Your task to perform on an android device: What's on my calendar tomorrow? Image 0: 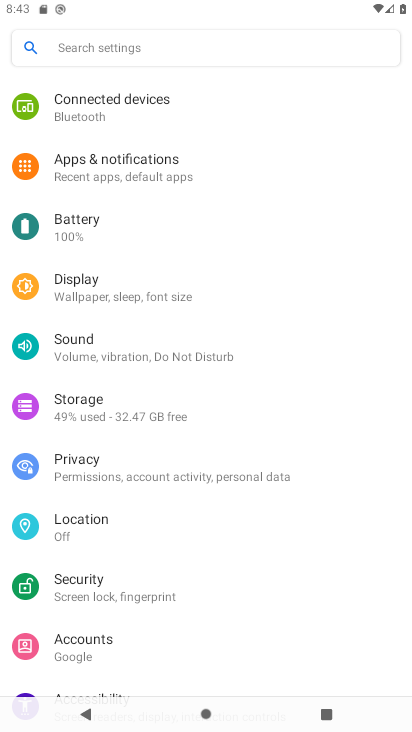
Step 0: press home button
Your task to perform on an android device: What's on my calendar tomorrow? Image 1: 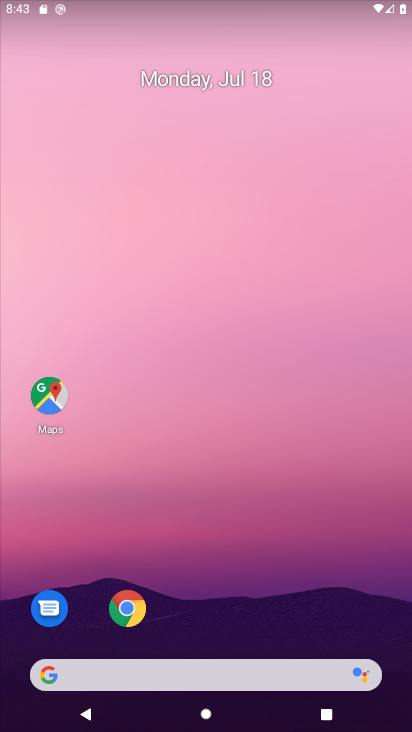
Step 1: drag from (181, 666) to (173, 241)
Your task to perform on an android device: What's on my calendar tomorrow? Image 2: 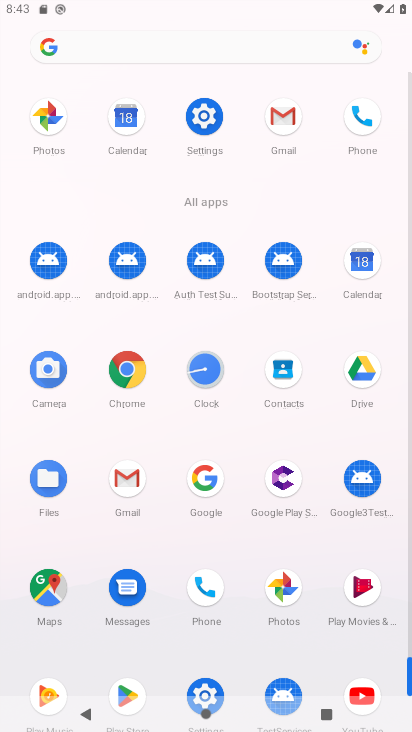
Step 2: click (361, 266)
Your task to perform on an android device: What's on my calendar tomorrow? Image 3: 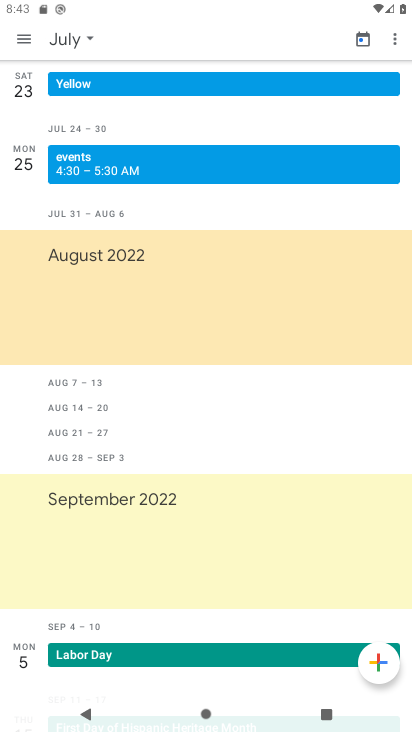
Step 3: click (363, 40)
Your task to perform on an android device: What's on my calendar tomorrow? Image 4: 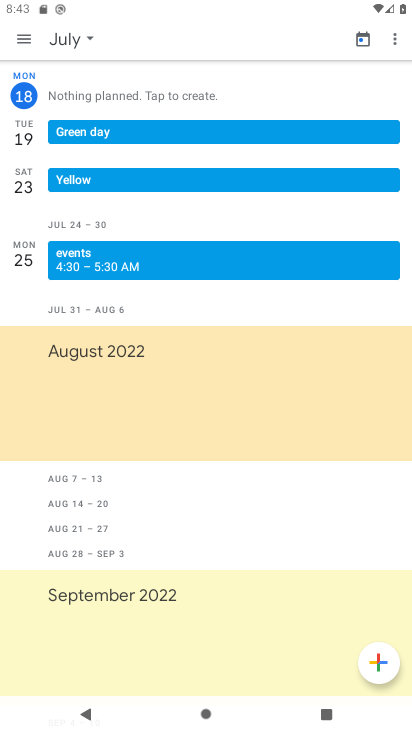
Step 4: click (85, 35)
Your task to perform on an android device: What's on my calendar tomorrow? Image 5: 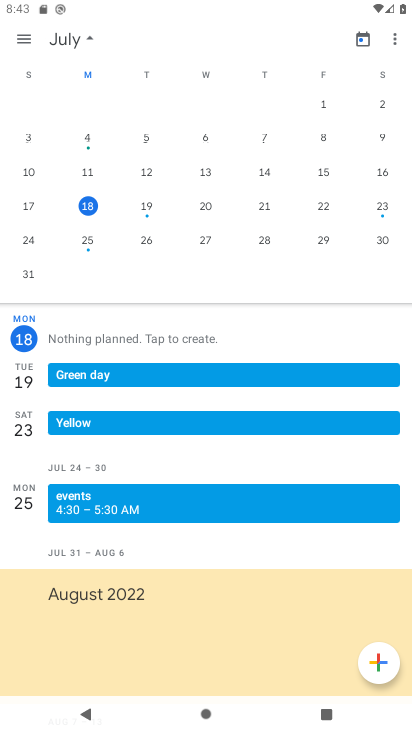
Step 5: click (146, 207)
Your task to perform on an android device: What's on my calendar tomorrow? Image 6: 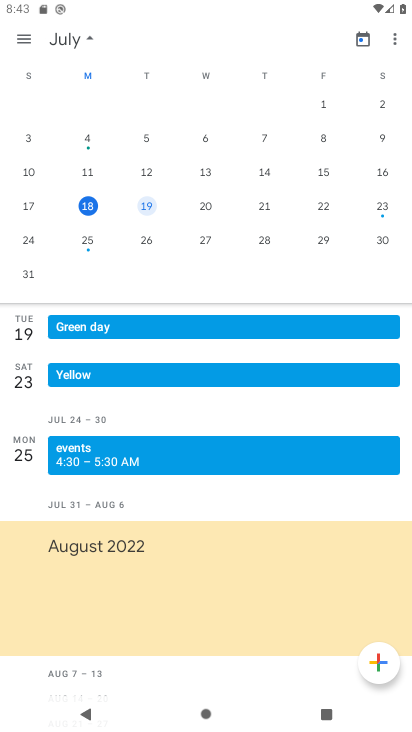
Step 6: click (24, 45)
Your task to perform on an android device: What's on my calendar tomorrow? Image 7: 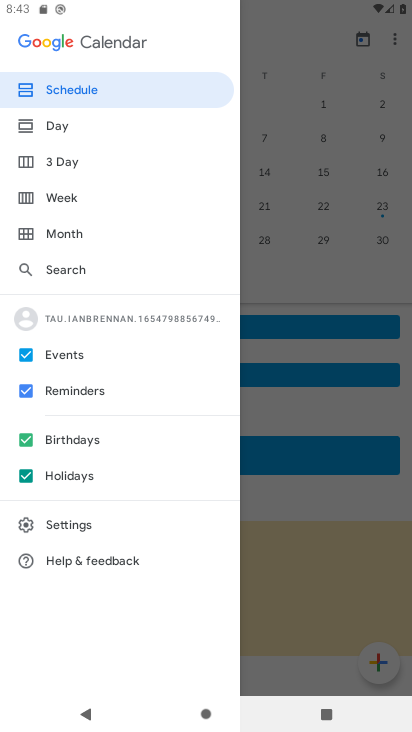
Step 7: click (56, 95)
Your task to perform on an android device: What's on my calendar tomorrow? Image 8: 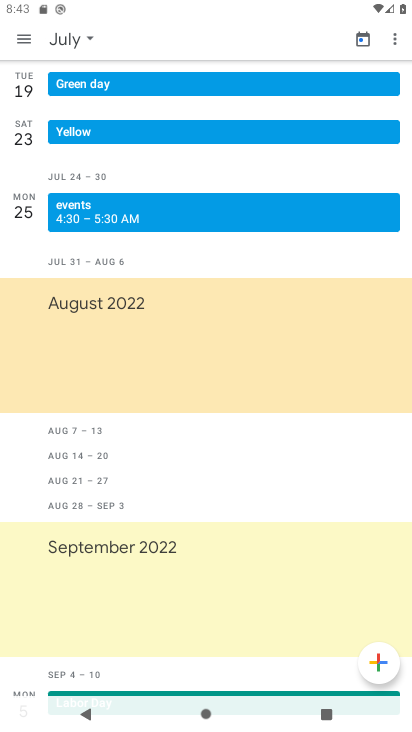
Step 8: task complete